Your task to perform on an android device: Open calendar and show me the third week of next month Image 0: 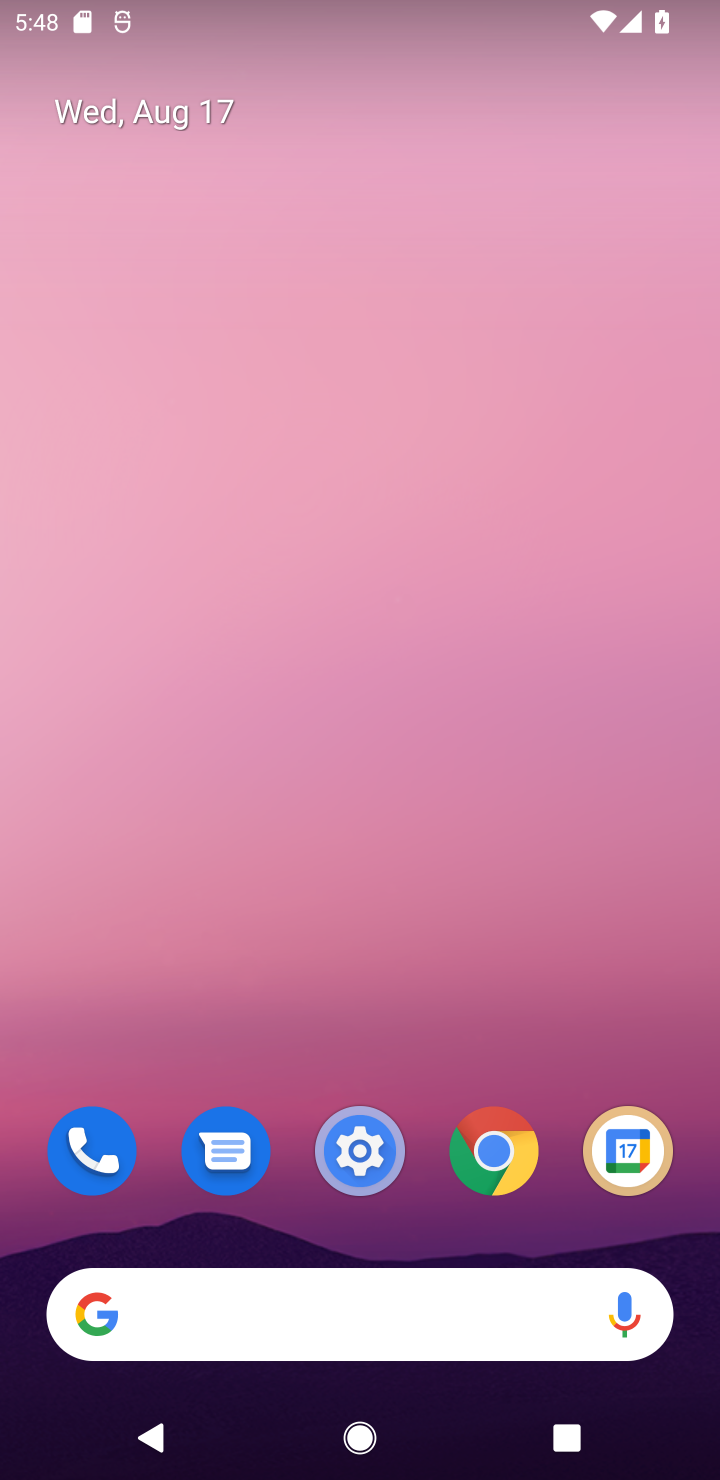
Step 0: drag from (434, 1214) to (406, 210)
Your task to perform on an android device: Open calendar and show me the third week of next month Image 1: 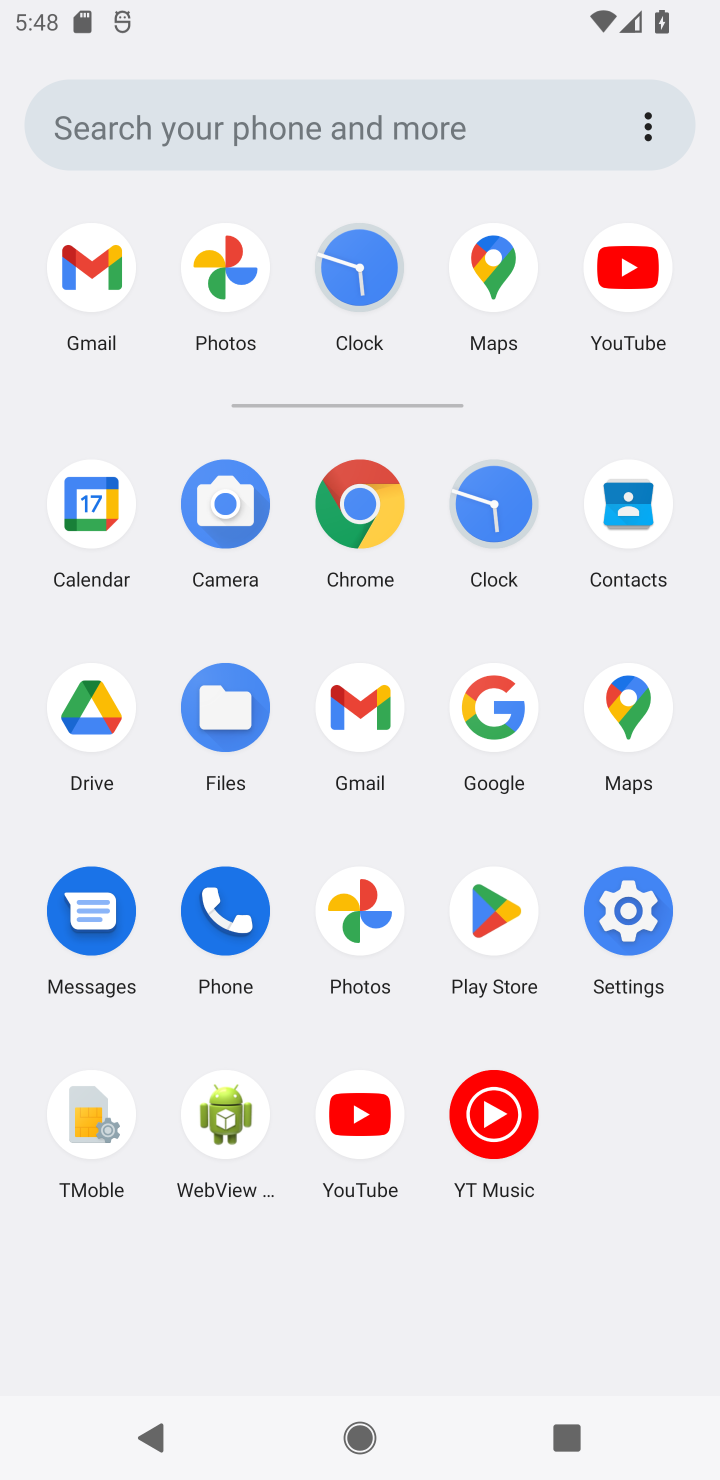
Step 1: task complete